Your task to perform on an android device: Open Chrome and go to the settings page Image 0: 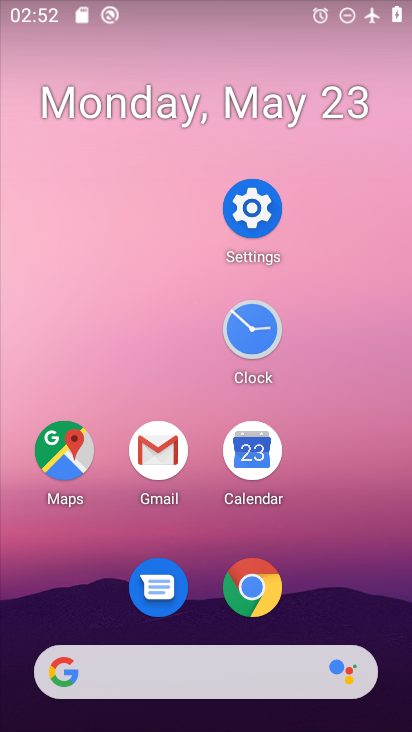
Step 0: click (271, 589)
Your task to perform on an android device: Open Chrome and go to the settings page Image 1: 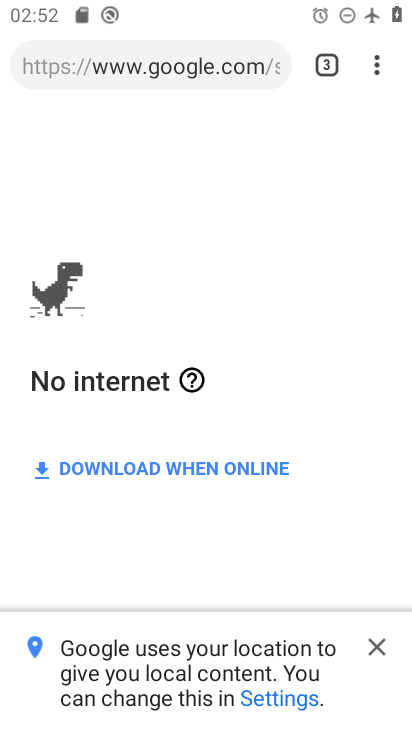
Step 1: task complete